Your task to perform on an android device: open the mobile data screen to see how much data has been used Image 0: 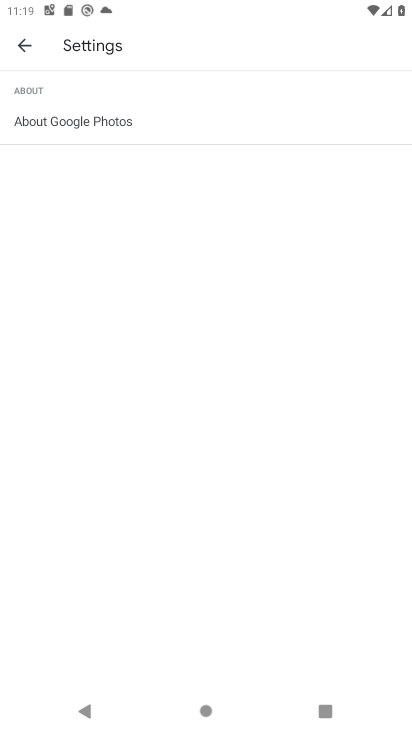
Step 0: press home button
Your task to perform on an android device: open the mobile data screen to see how much data has been used Image 1: 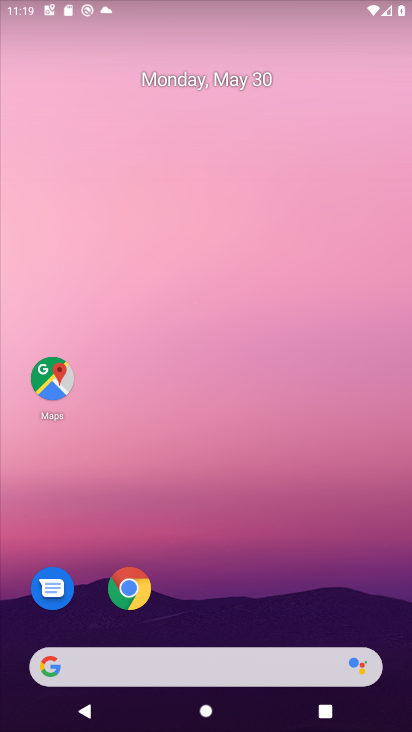
Step 1: drag from (196, 660) to (215, 28)
Your task to perform on an android device: open the mobile data screen to see how much data has been used Image 2: 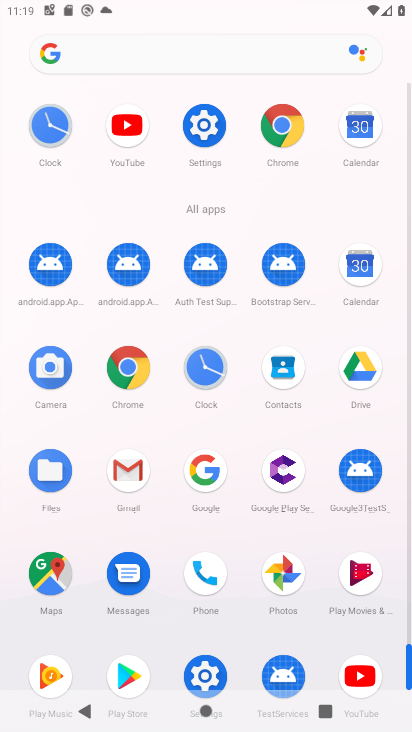
Step 2: click (204, 128)
Your task to perform on an android device: open the mobile data screen to see how much data has been used Image 3: 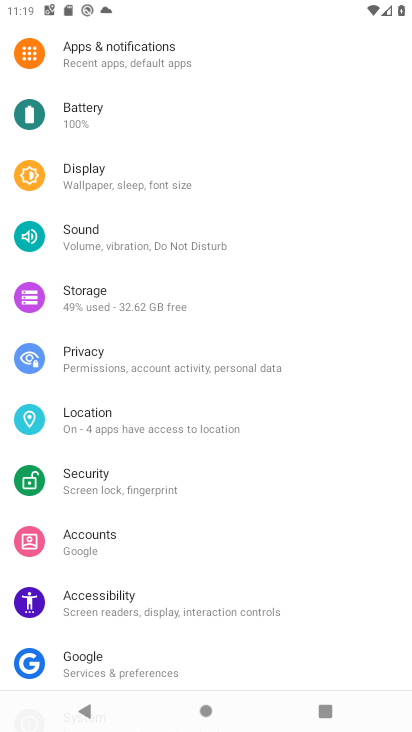
Step 3: drag from (197, 196) to (216, 660)
Your task to perform on an android device: open the mobile data screen to see how much data has been used Image 4: 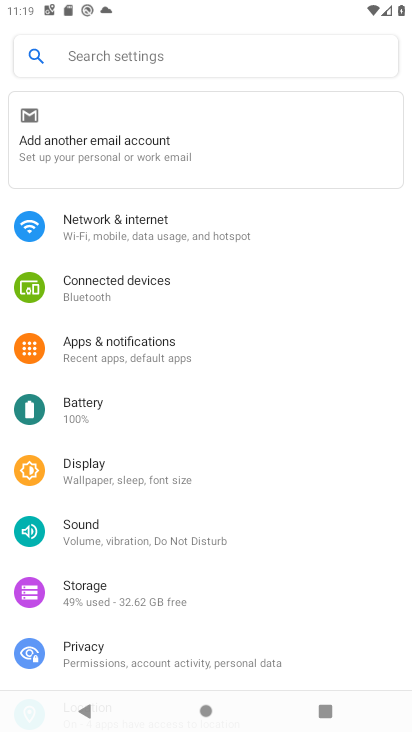
Step 4: click (146, 237)
Your task to perform on an android device: open the mobile data screen to see how much data has been used Image 5: 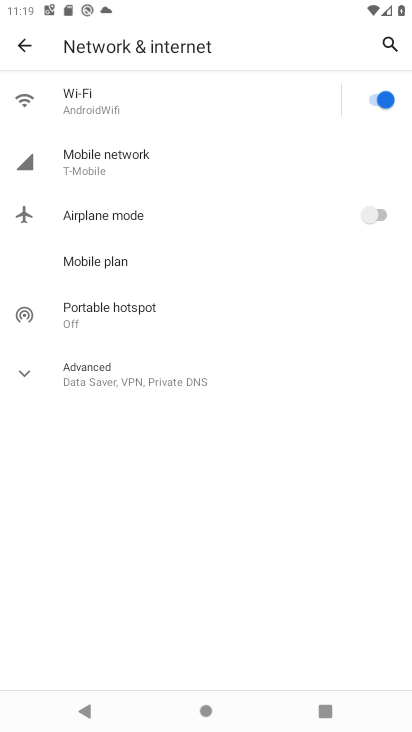
Step 5: click (201, 157)
Your task to perform on an android device: open the mobile data screen to see how much data has been used Image 6: 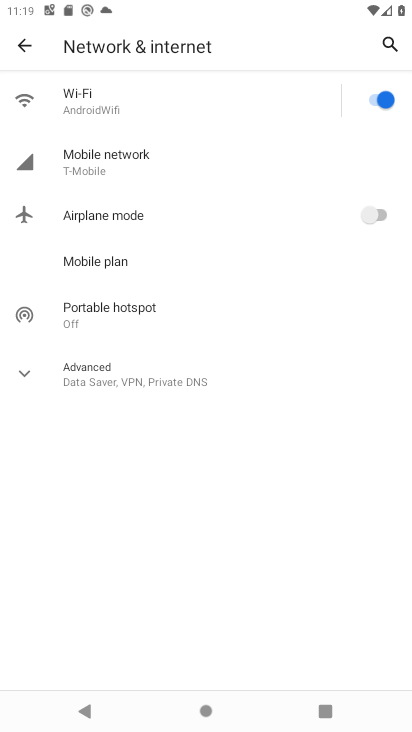
Step 6: task complete